Your task to perform on an android device: Check the weather Image 0: 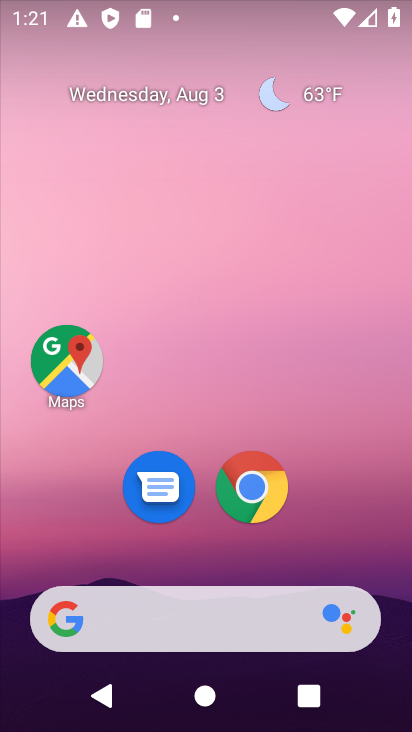
Step 0: drag from (325, 524) to (312, 113)
Your task to perform on an android device: Check the weather Image 1: 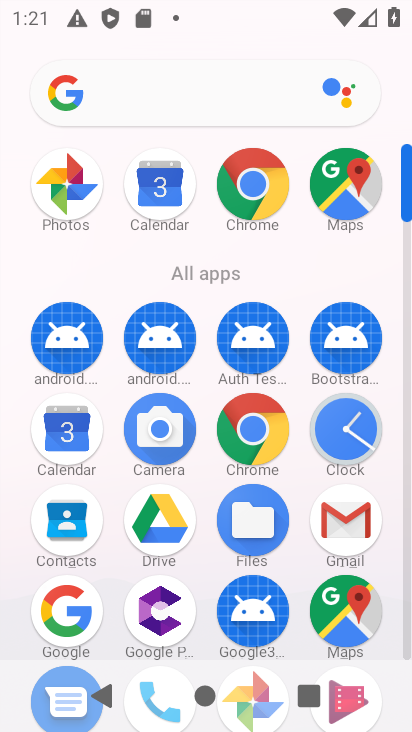
Step 1: click (262, 416)
Your task to perform on an android device: Check the weather Image 2: 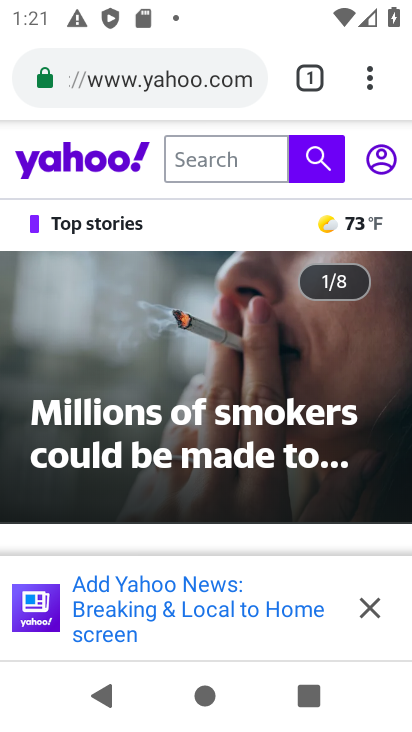
Step 2: click (156, 70)
Your task to perform on an android device: Check the weather Image 3: 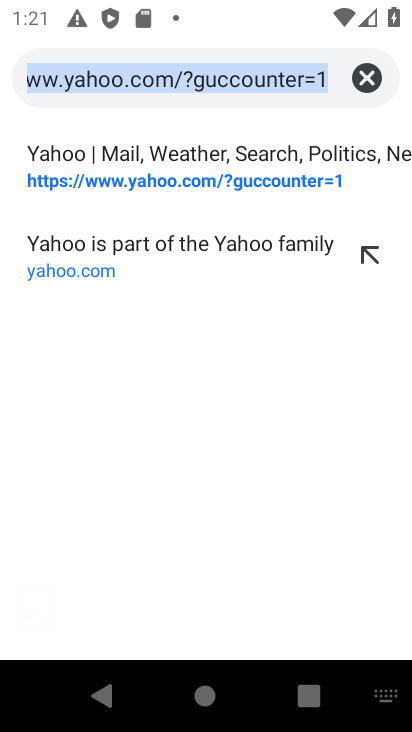
Step 3: click (361, 65)
Your task to perform on an android device: Check the weather Image 4: 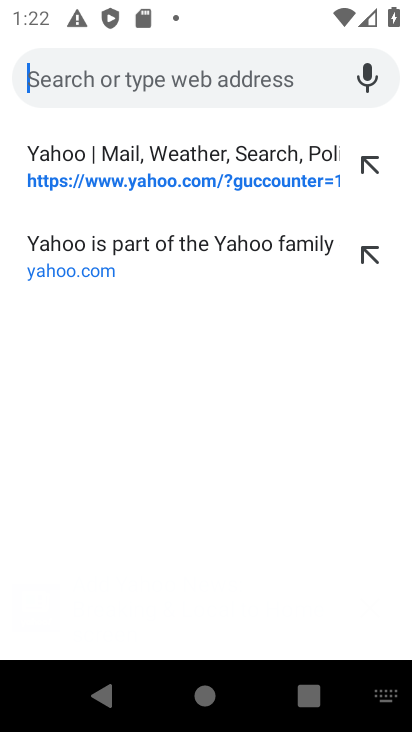
Step 4: type "Check the weather"
Your task to perform on an android device: Check the weather Image 5: 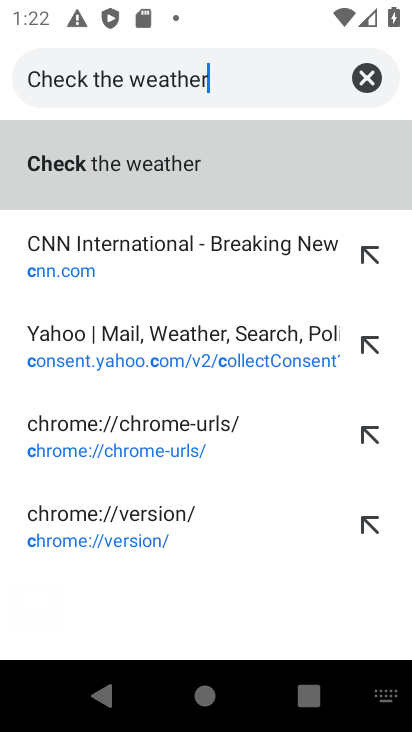
Step 5: type ""
Your task to perform on an android device: Check the weather Image 6: 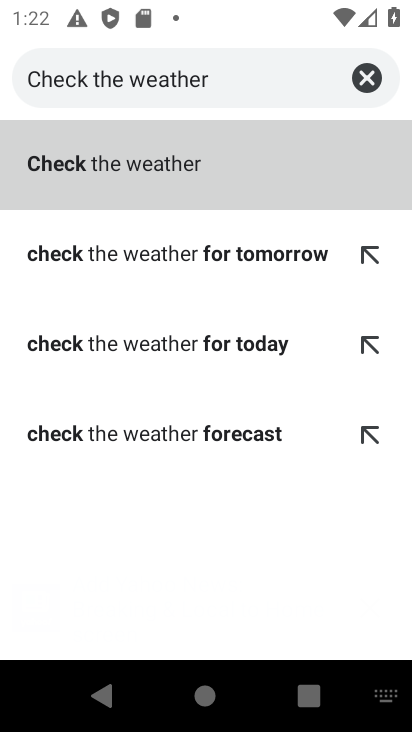
Step 6: click (148, 154)
Your task to perform on an android device: Check the weather Image 7: 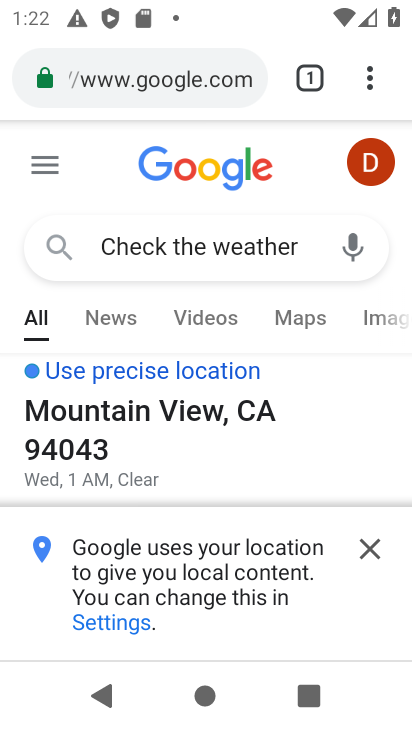
Step 7: click (373, 538)
Your task to perform on an android device: Check the weather Image 8: 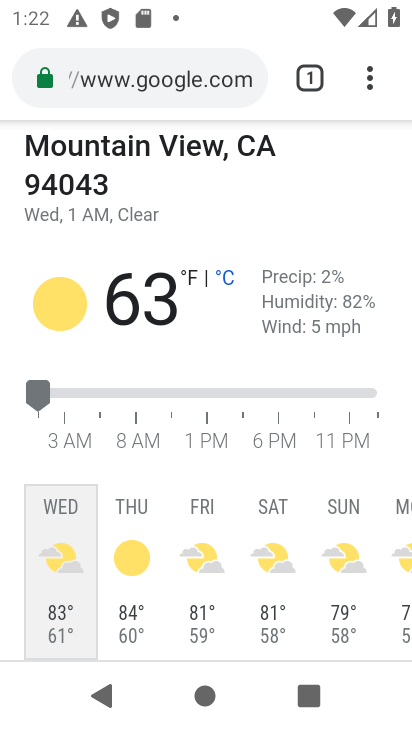
Step 8: task complete